Your task to perform on an android device: turn smart compose on in the gmail app Image 0: 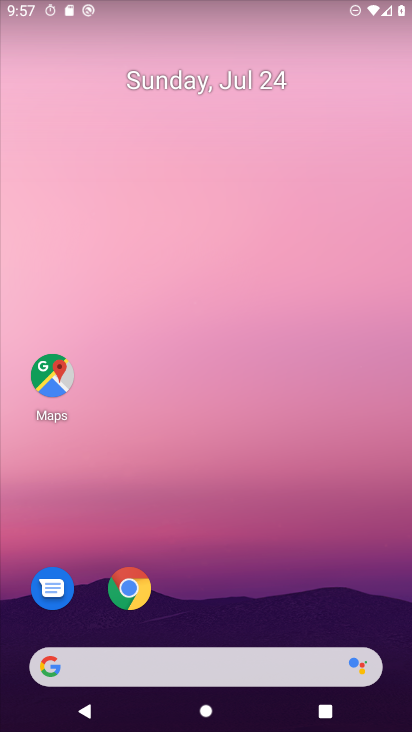
Step 0: drag from (313, 639) to (294, 28)
Your task to perform on an android device: turn smart compose on in the gmail app Image 1: 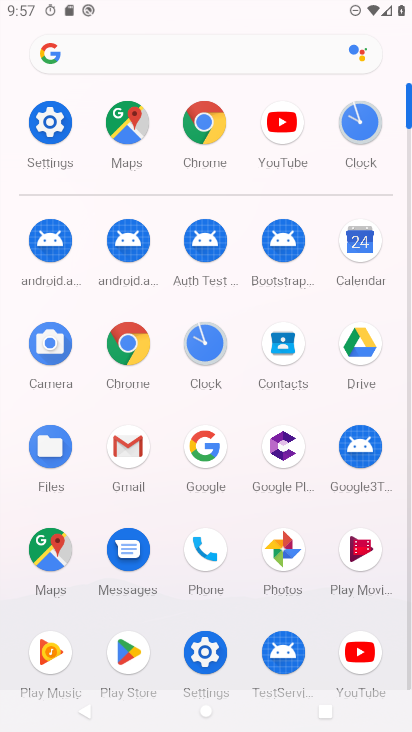
Step 1: click (118, 453)
Your task to perform on an android device: turn smart compose on in the gmail app Image 2: 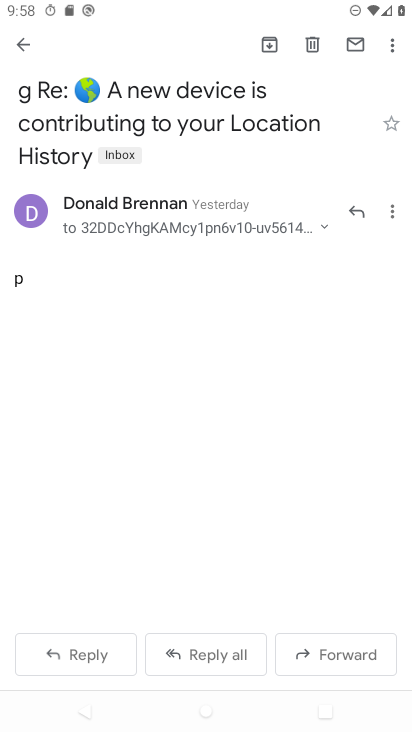
Step 2: click (22, 36)
Your task to perform on an android device: turn smart compose on in the gmail app Image 3: 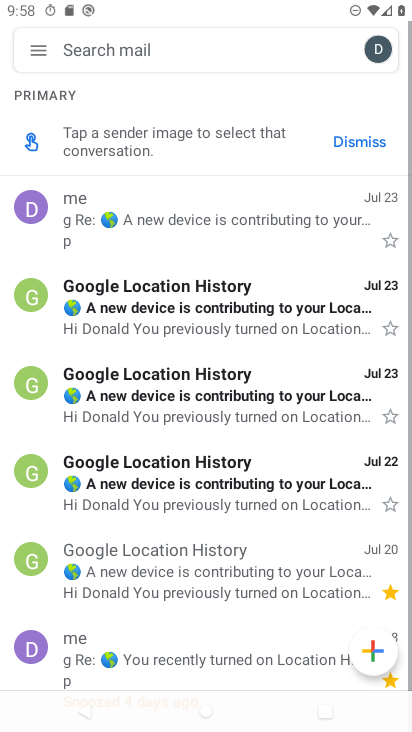
Step 3: click (22, 36)
Your task to perform on an android device: turn smart compose on in the gmail app Image 4: 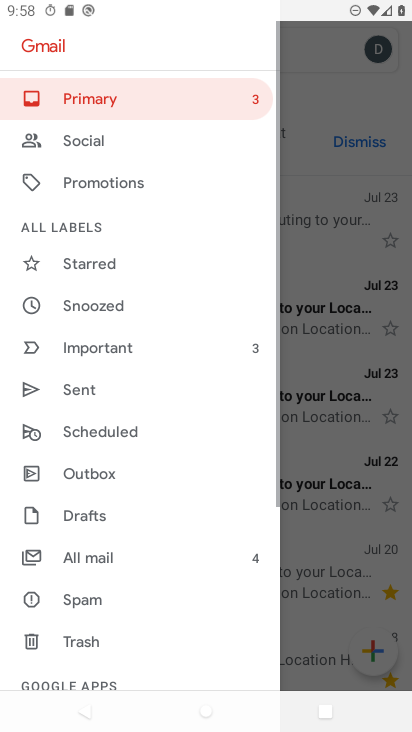
Step 4: drag from (199, 624) to (186, 113)
Your task to perform on an android device: turn smart compose on in the gmail app Image 5: 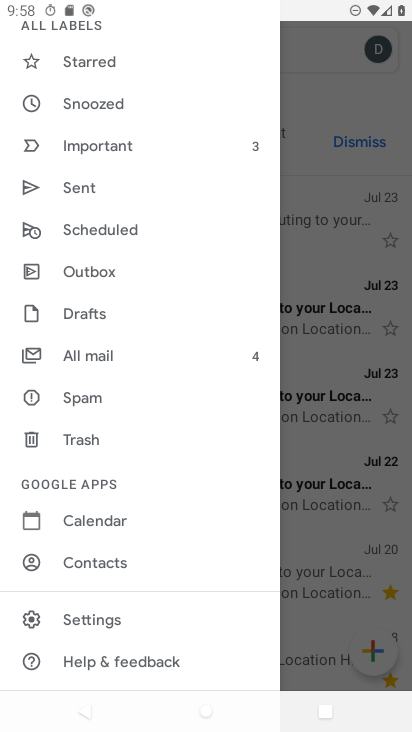
Step 5: click (105, 622)
Your task to perform on an android device: turn smart compose on in the gmail app Image 6: 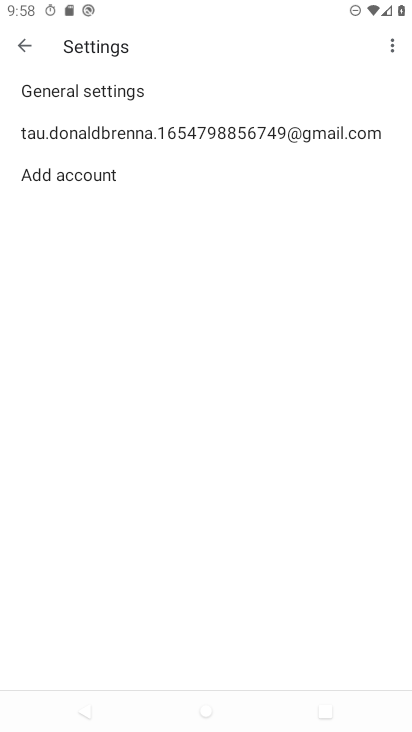
Step 6: click (191, 123)
Your task to perform on an android device: turn smart compose on in the gmail app Image 7: 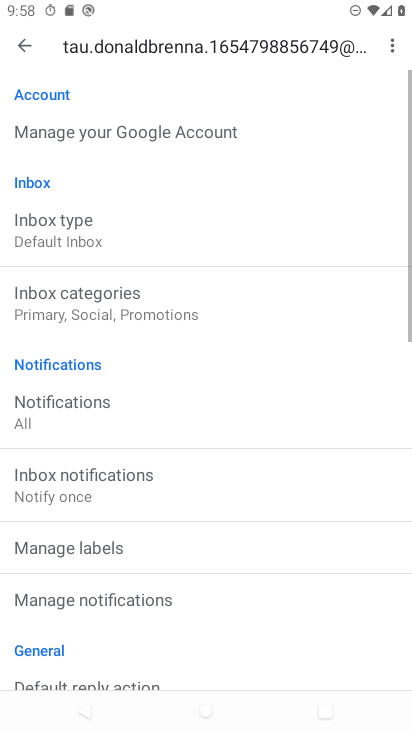
Step 7: task complete